Your task to perform on an android device: toggle improve location accuracy Image 0: 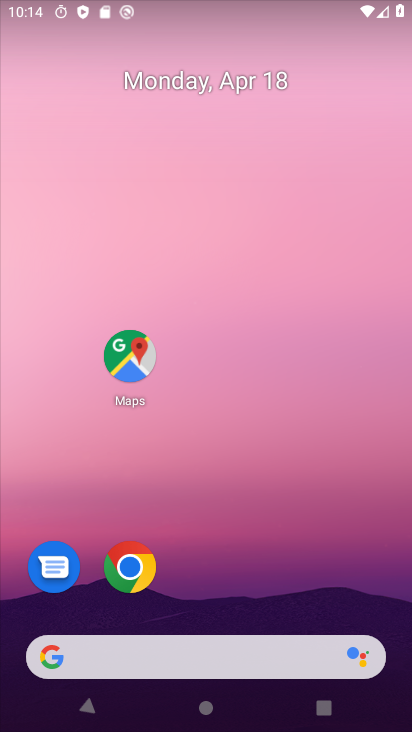
Step 0: click (289, 238)
Your task to perform on an android device: toggle improve location accuracy Image 1: 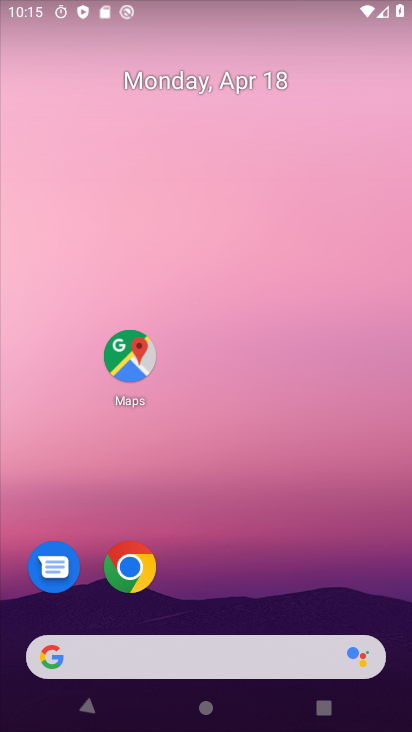
Step 1: drag from (277, 584) to (339, 237)
Your task to perform on an android device: toggle improve location accuracy Image 2: 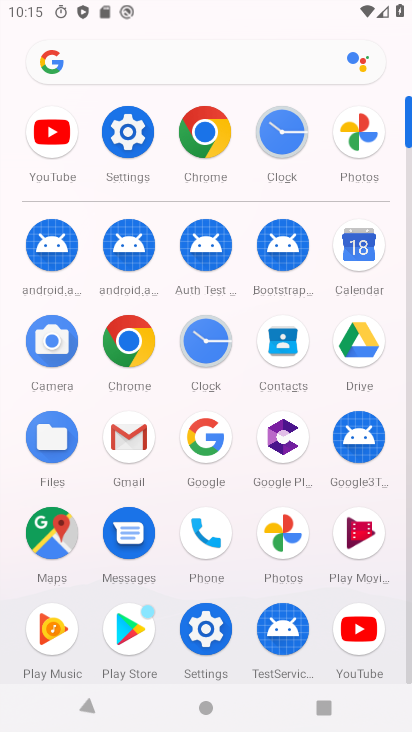
Step 2: click (212, 621)
Your task to perform on an android device: toggle improve location accuracy Image 3: 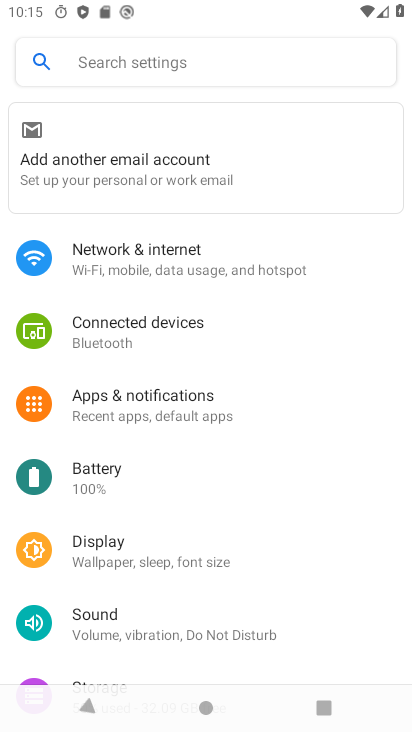
Step 3: click (153, 63)
Your task to perform on an android device: toggle improve location accuracy Image 4: 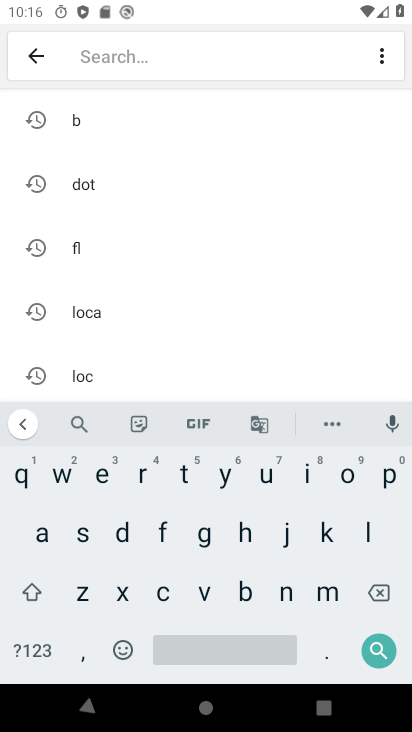
Step 4: click (109, 314)
Your task to perform on an android device: toggle improve location accuracy Image 5: 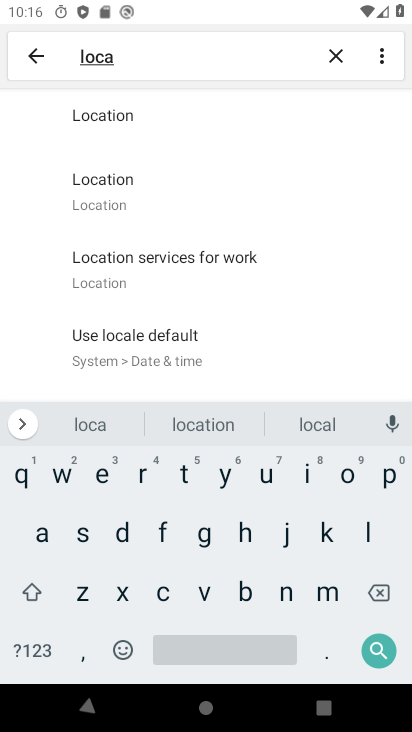
Step 5: click (123, 203)
Your task to perform on an android device: toggle improve location accuracy Image 6: 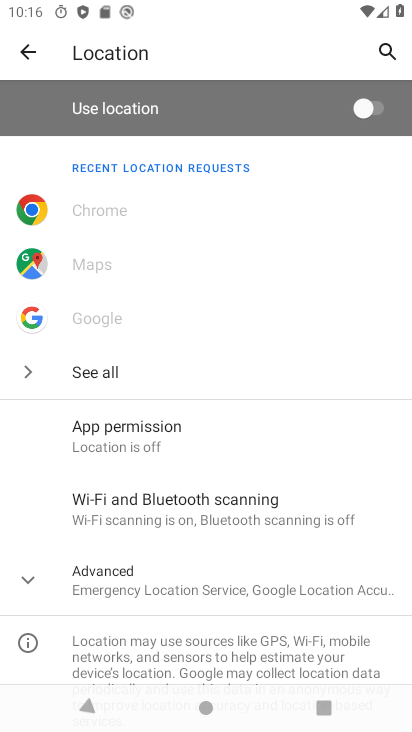
Step 6: click (129, 571)
Your task to perform on an android device: toggle improve location accuracy Image 7: 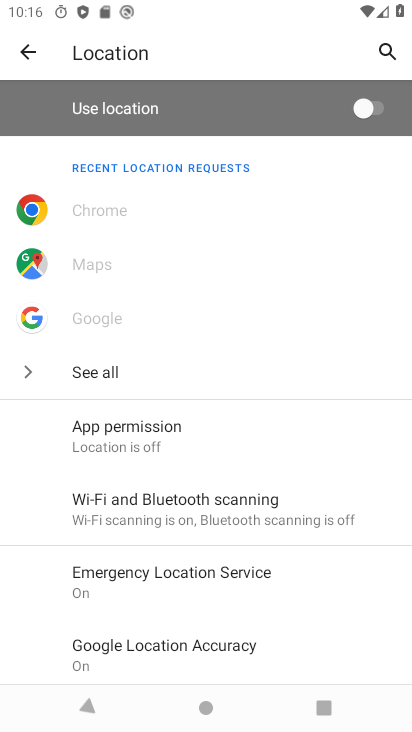
Step 7: click (201, 636)
Your task to perform on an android device: toggle improve location accuracy Image 8: 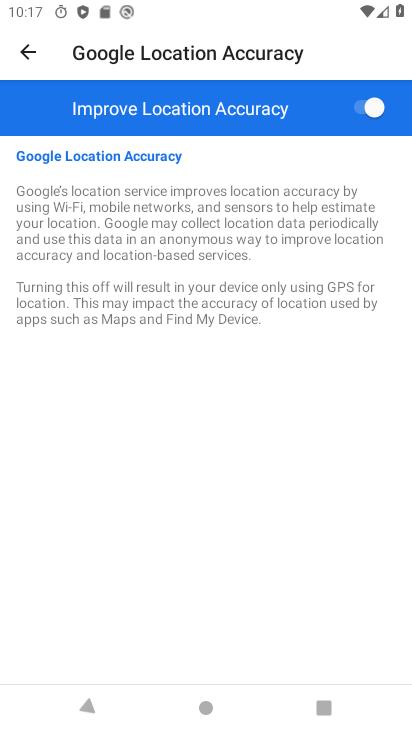
Step 8: task complete